Your task to perform on an android device: What's the weather today? Image 0: 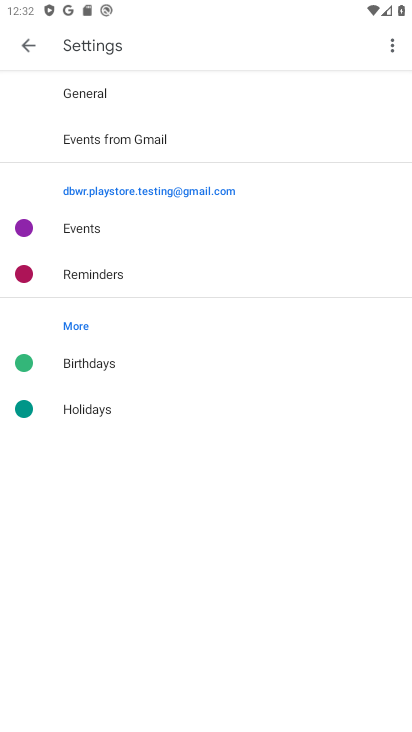
Step 0: press home button
Your task to perform on an android device: What's the weather today? Image 1: 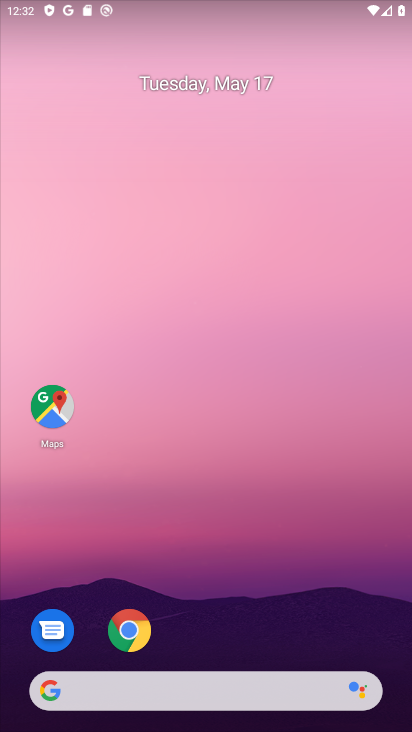
Step 1: click (219, 657)
Your task to perform on an android device: What's the weather today? Image 2: 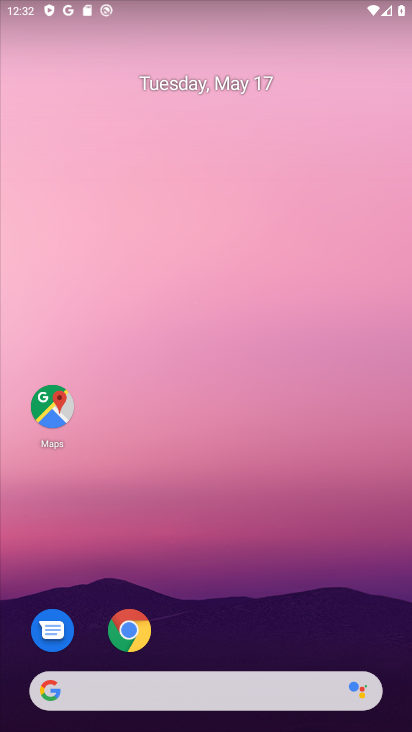
Step 2: click (205, 681)
Your task to perform on an android device: What's the weather today? Image 3: 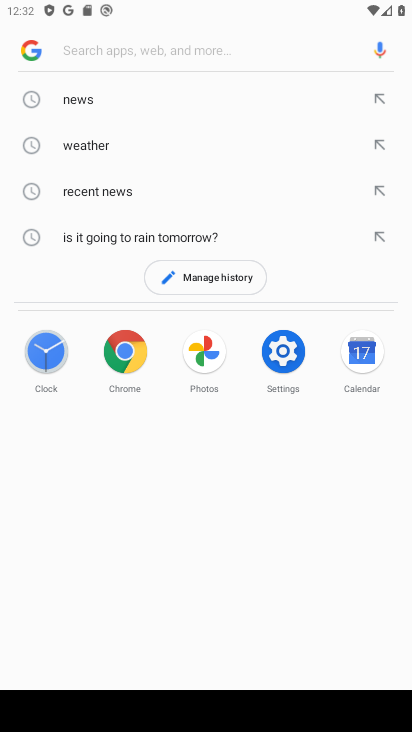
Step 3: click (151, 135)
Your task to perform on an android device: What's the weather today? Image 4: 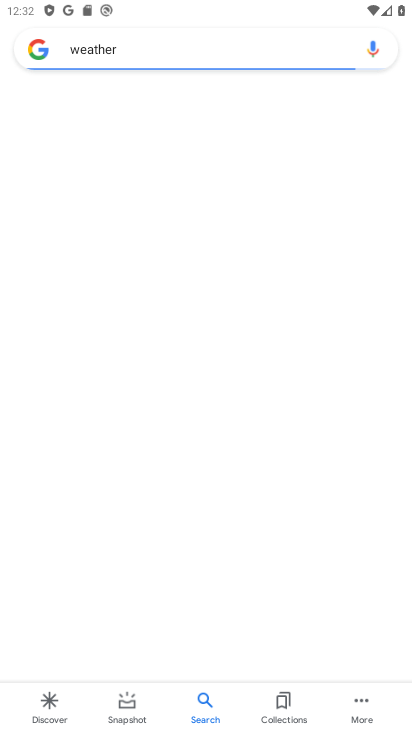
Step 4: task complete